Your task to perform on an android device: find photos in the google photos app Image 0: 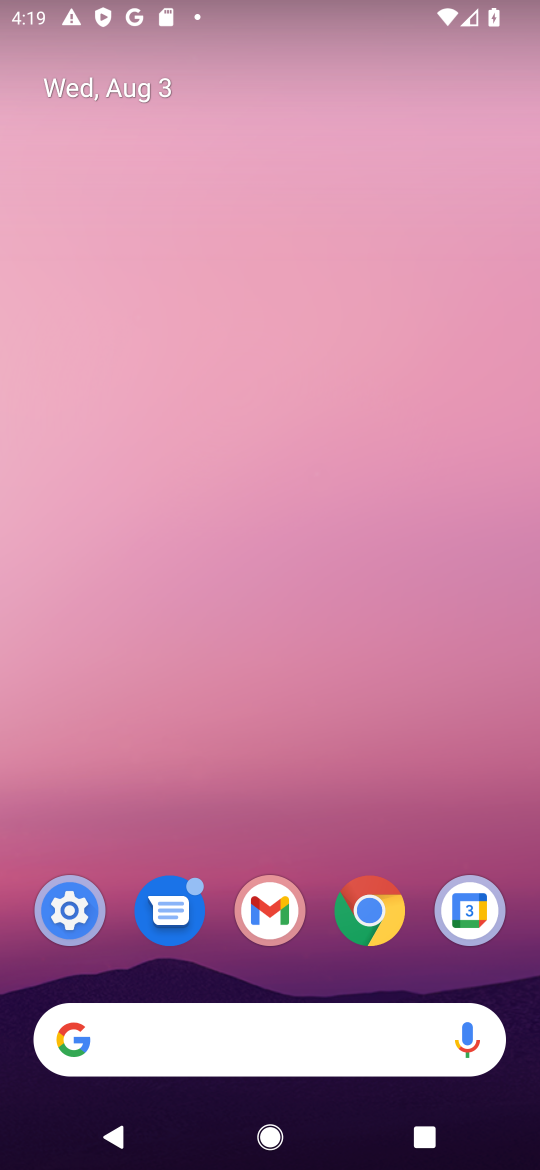
Step 0: click (360, 136)
Your task to perform on an android device: find photos in the google photos app Image 1: 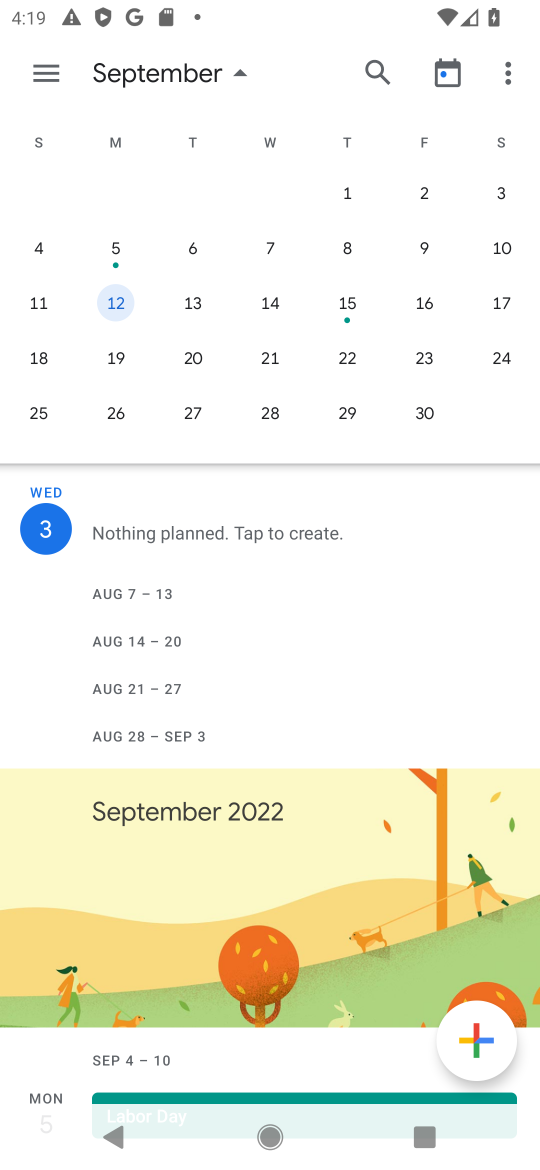
Step 1: press home button
Your task to perform on an android device: find photos in the google photos app Image 2: 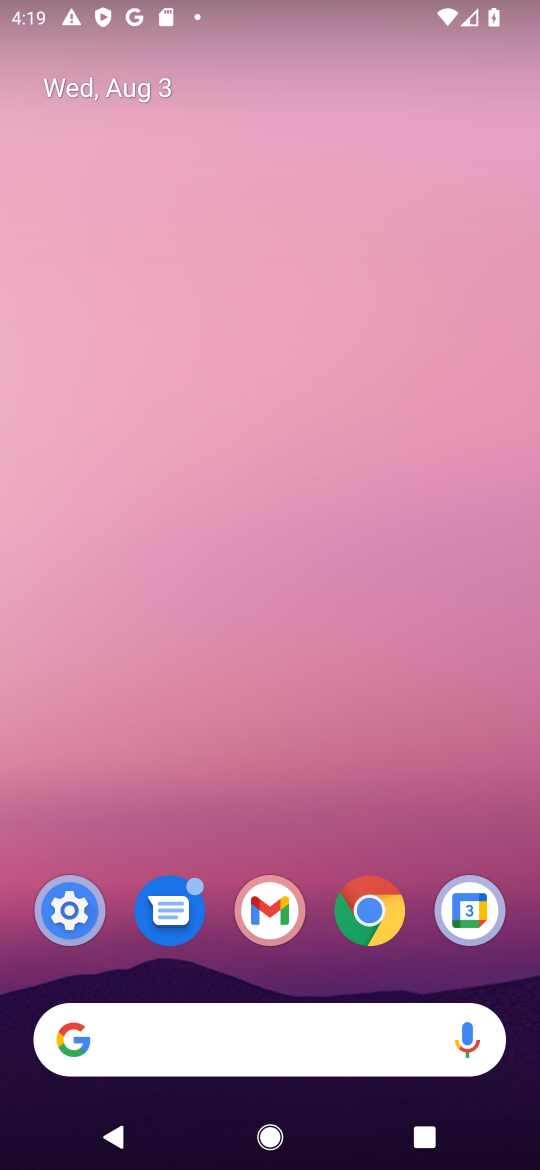
Step 2: drag from (205, 606) to (308, 20)
Your task to perform on an android device: find photos in the google photos app Image 3: 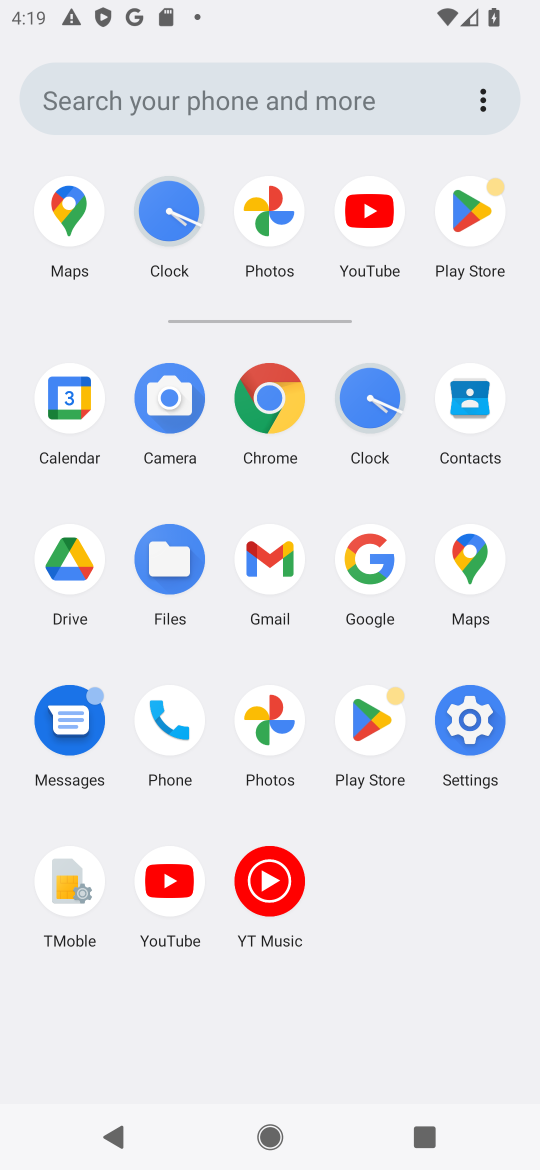
Step 3: click (258, 722)
Your task to perform on an android device: find photos in the google photos app Image 4: 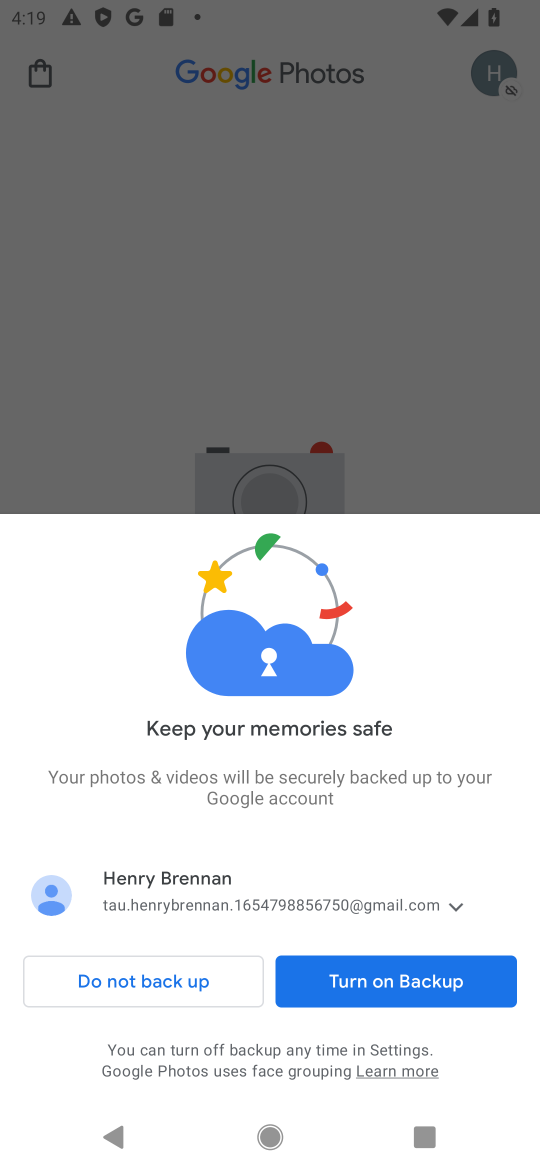
Step 4: click (327, 334)
Your task to perform on an android device: find photos in the google photos app Image 5: 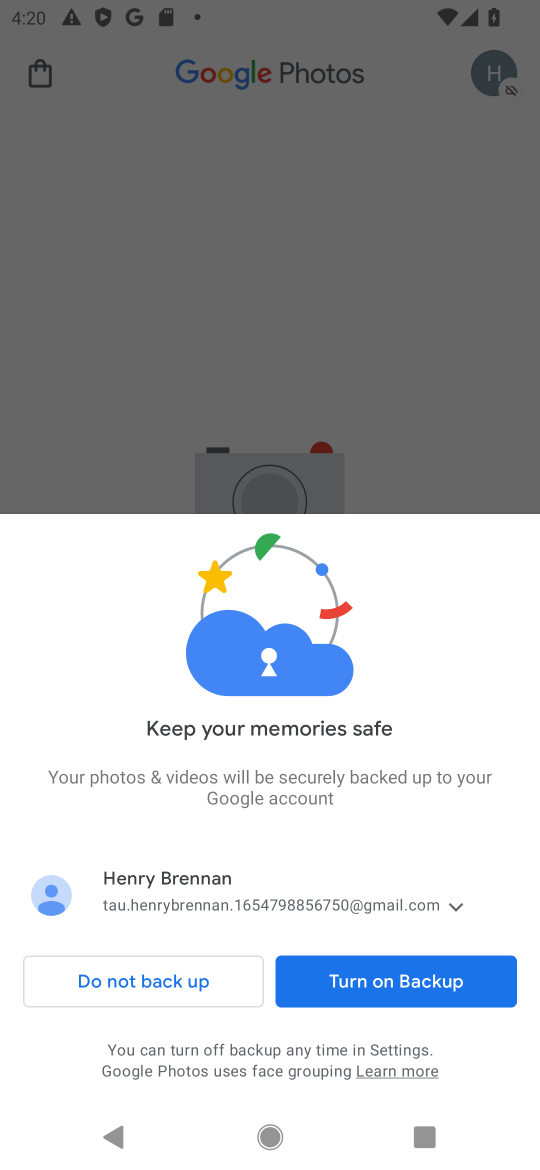
Step 5: click (80, 959)
Your task to perform on an android device: find photos in the google photos app Image 6: 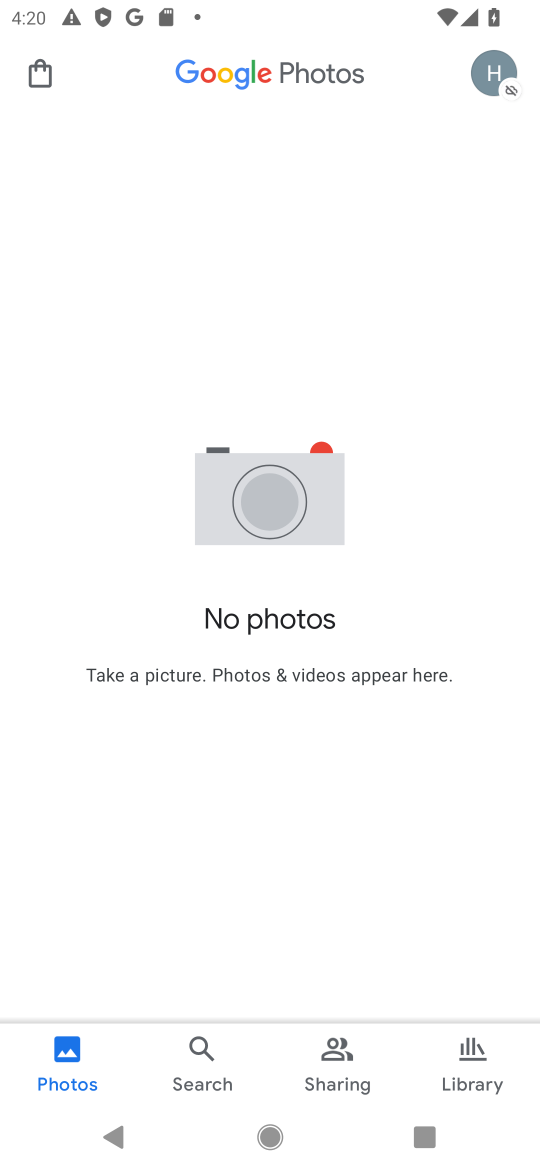
Step 6: task complete